Your task to perform on an android device: empty trash in google photos Image 0: 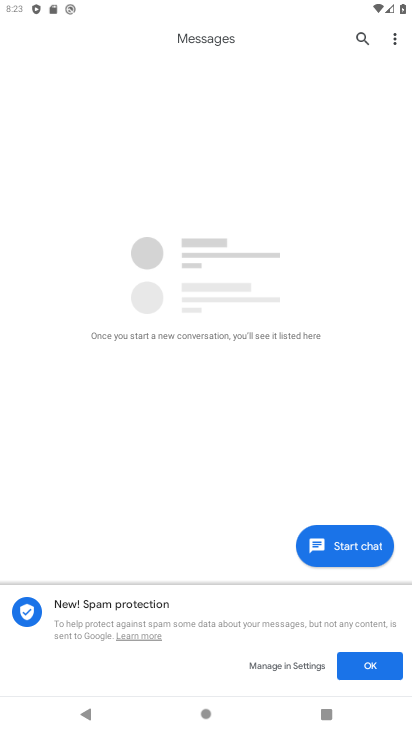
Step 0: press home button
Your task to perform on an android device: empty trash in google photos Image 1: 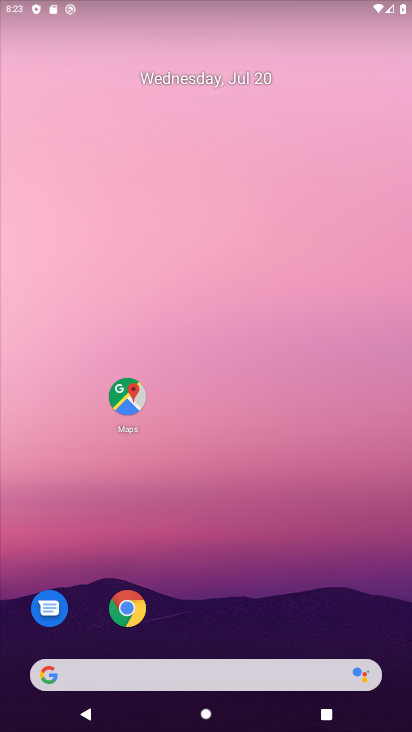
Step 1: drag from (181, 621) to (281, 199)
Your task to perform on an android device: empty trash in google photos Image 2: 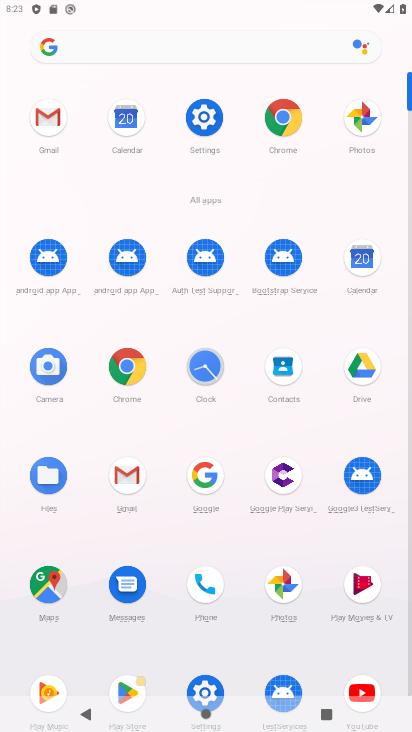
Step 2: click (277, 582)
Your task to perform on an android device: empty trash in google photos Image 3: 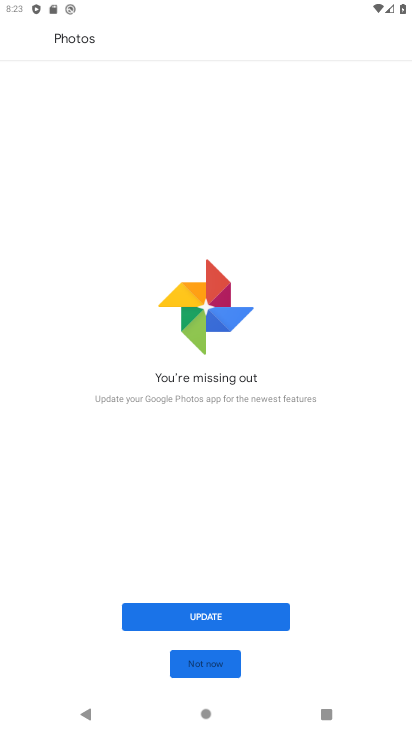
Step 3: click (180, 610)
Your task to perform on an android device: empty trash in google photos Image 4: 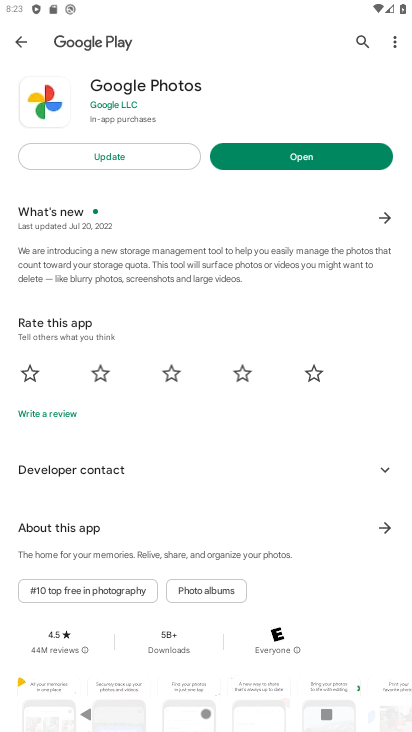
Step 4: click (118, 165)
Your task to perform on an android device: empty trash in google photos Image 5: 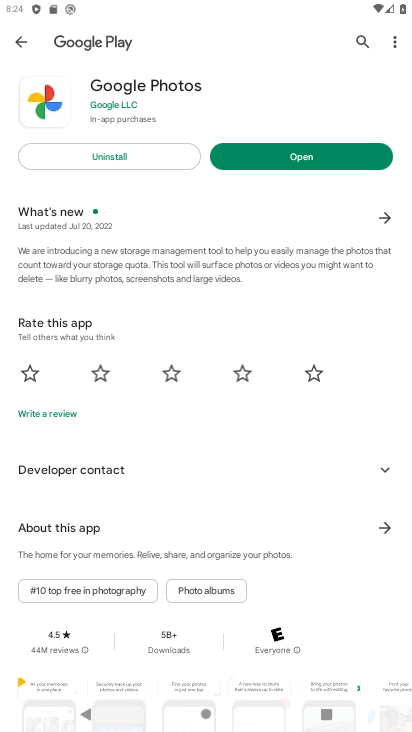
Step 5: click (286, 157)
Your task to perform on an android device: empty trash in google photos Image 6: 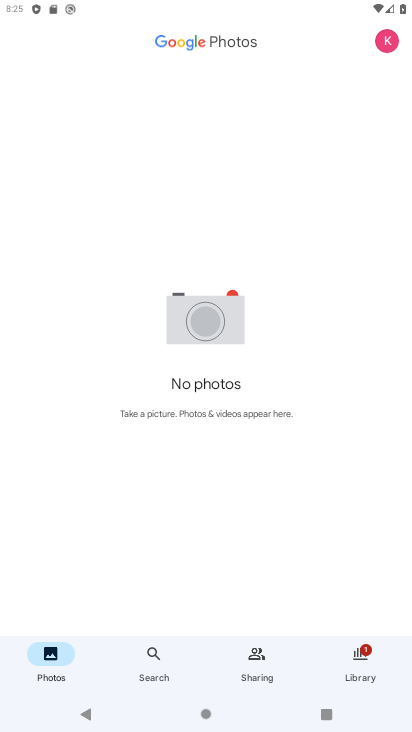
Step 6: click (390, 47)
Your task to perform on an android device: empty trash in google photos Image 7: 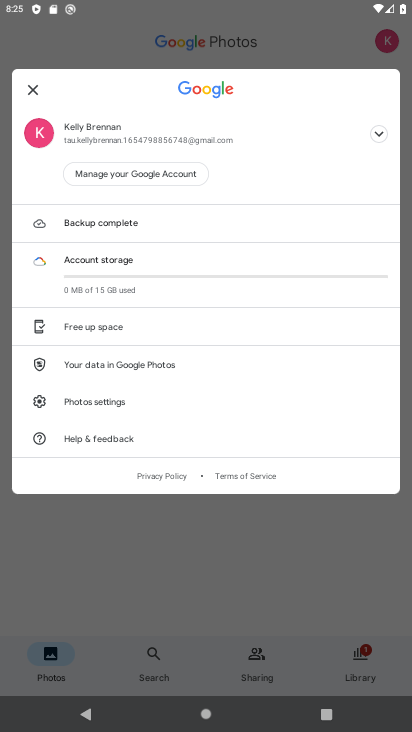
Step 7: click (357, 636)
Your task to perform on an android device: empty trash in google photos Image 8: 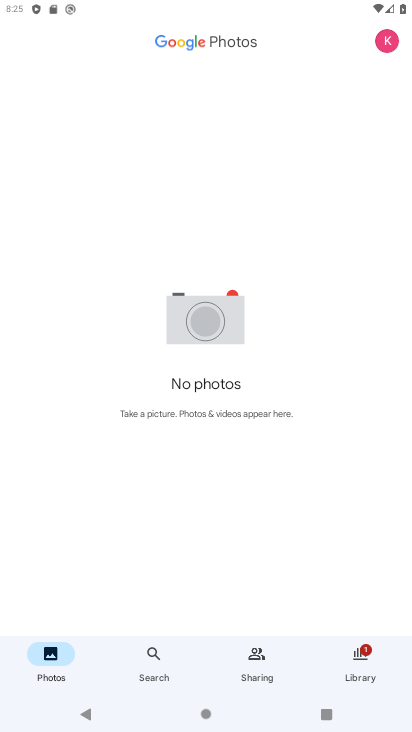
Step 8: click (361, 652)
Your task to perform on an android device: empty trash in google photos Image 9: 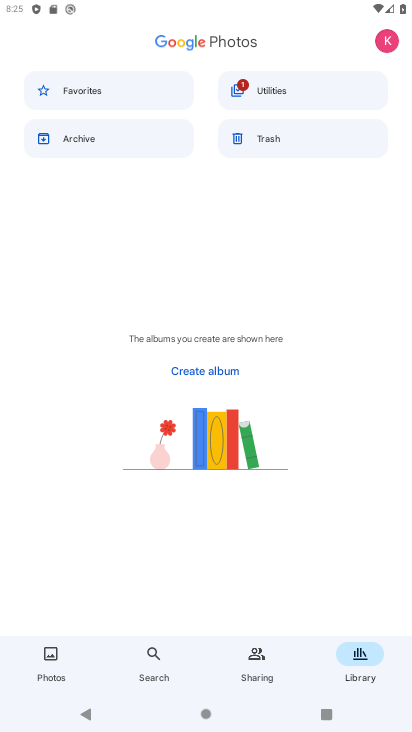
Step 9: click (360, 673)
Your task to perform on an android device: empty trash in google photos Image 10: 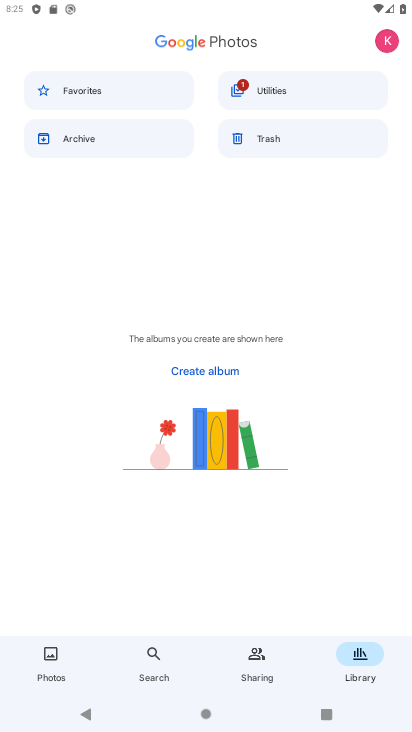
Step 10: click (290, 143)
Your task to perform on an android device: empty trash in google photos Image 11: 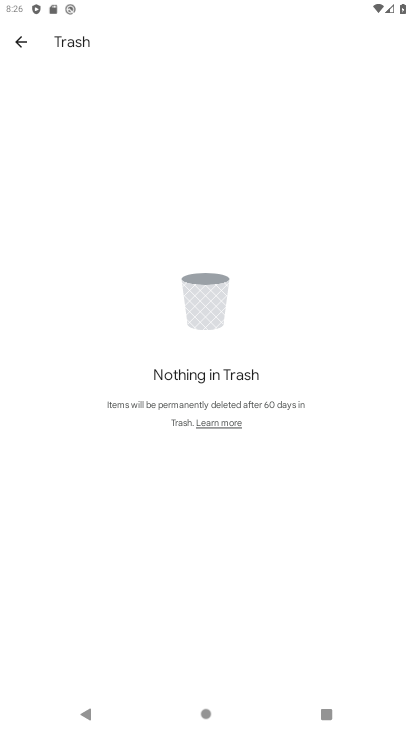
Step 11: task complete